Your task to perform on an android device: turn off translation in the chrome app Image 0: 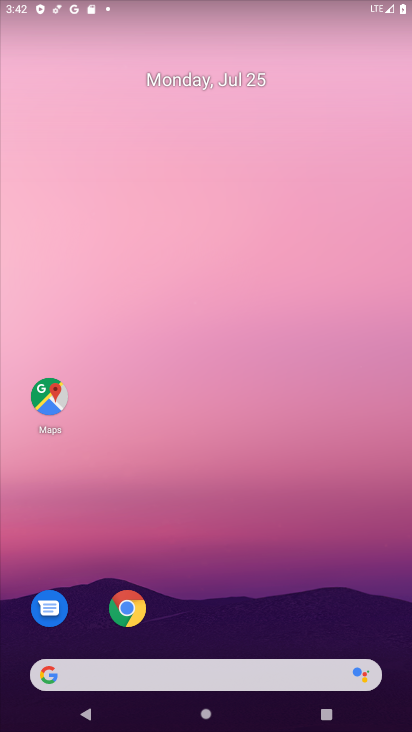
Step 0: drag from (33, 641) to (253, 137)
Your task to perform on an android device: turn off translation in the chrome app Image 1: 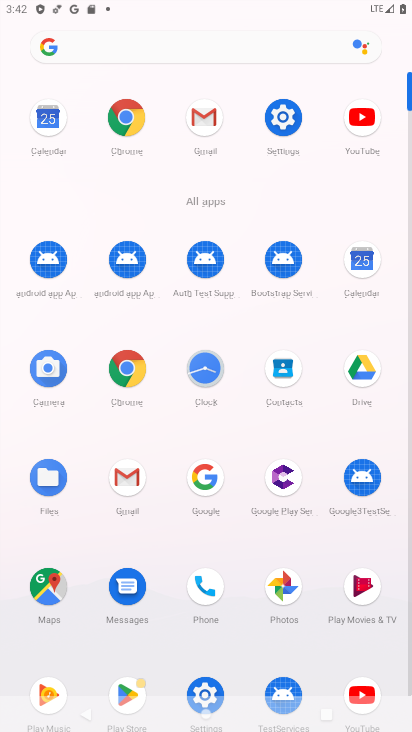
Step 1: click (119, 127)
Your task to perform on an android device: turn off translation in the chrome app Image 2: 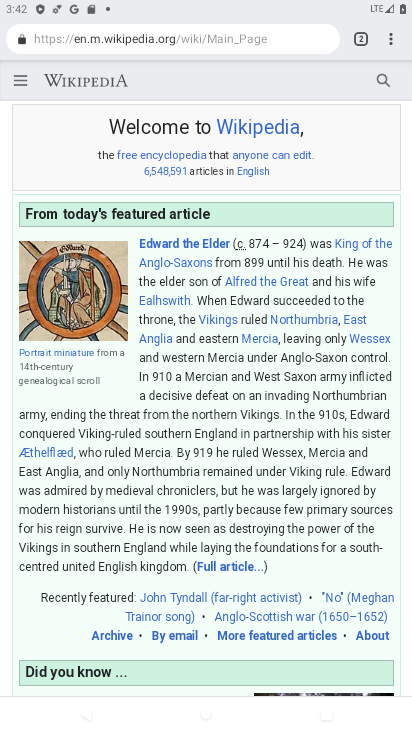
Step 2: click (392, 34)
Your task to perform on an android device: turn off translation in the chrome app Image 3: 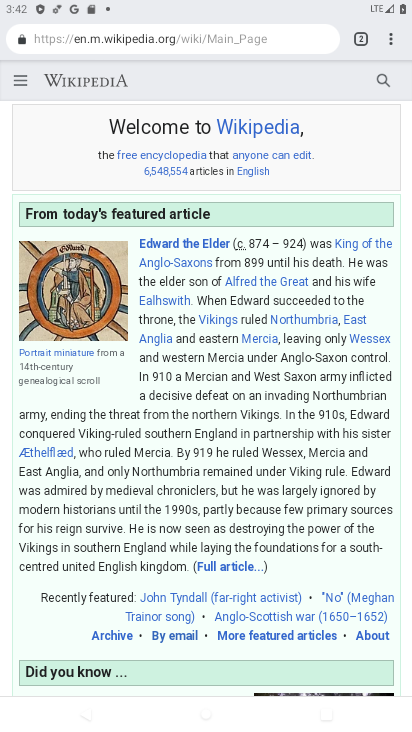
Step 3: click (383, 40)
Your task to perform on an android device: turn off translation in the chrome app Image 4: 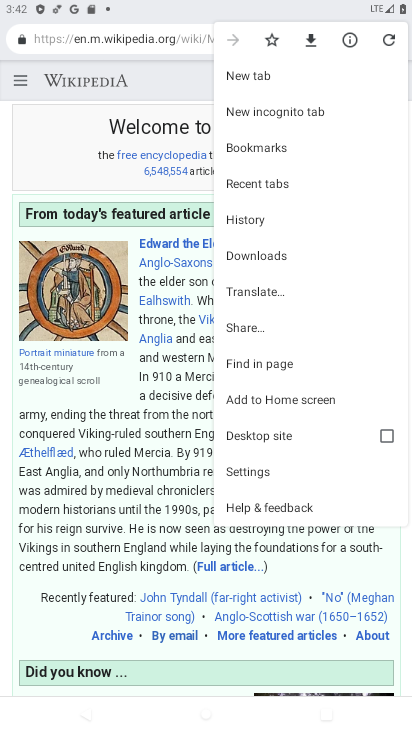
Step 4: click (250, 477)
Your task to perform on an android device: turn off translation in the chrome app Image 5: 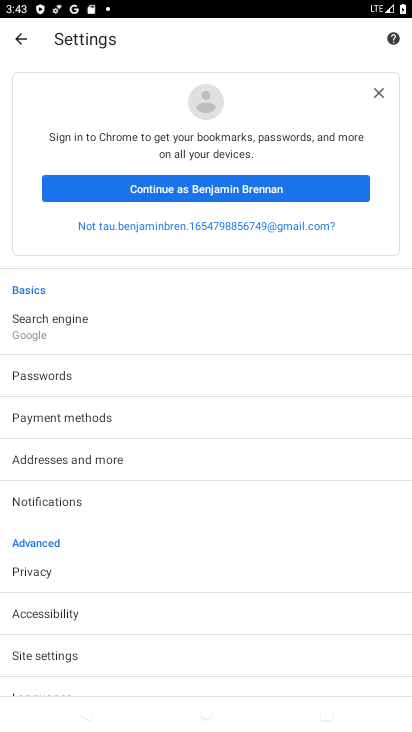
Step 5: drag from (6, 591) to (155, 177)
Your task to perform on an android device: turn off translation in the chrome app Image 6: 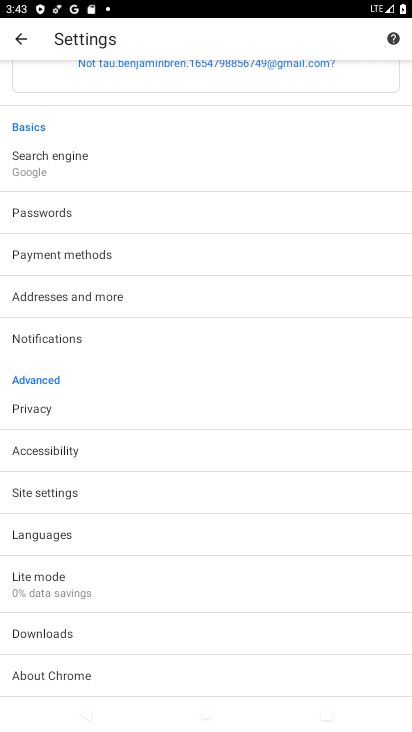
Step 6: click (40, 535)
Your task to perform on an android device: turn off translation in the chrome app Image 7: 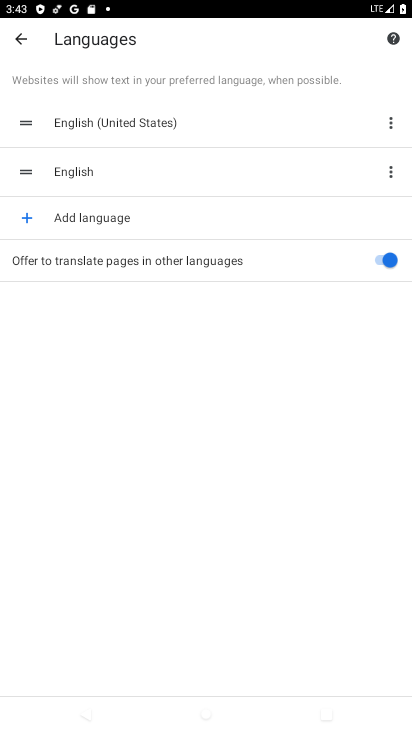
Step 7: click (394, 261)
Your task to perform on an android device: turn off translation in the chrome app Image 8: 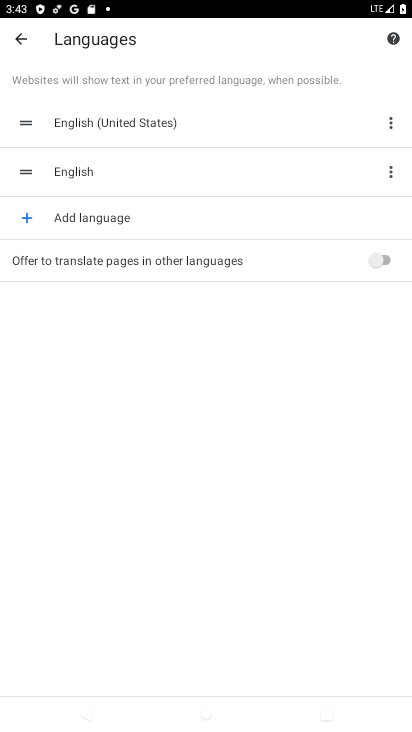
Step 8: task complete